Your task to perform on an android device: Open calendar and show me the fourth week of next month Image 0: 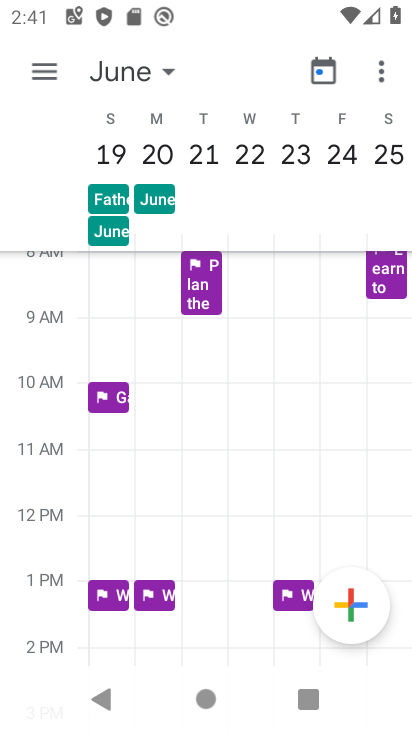
Step 0: press home button
Your task to perform on an android device: Open calendar and show me the fourth week of next month Image 1: 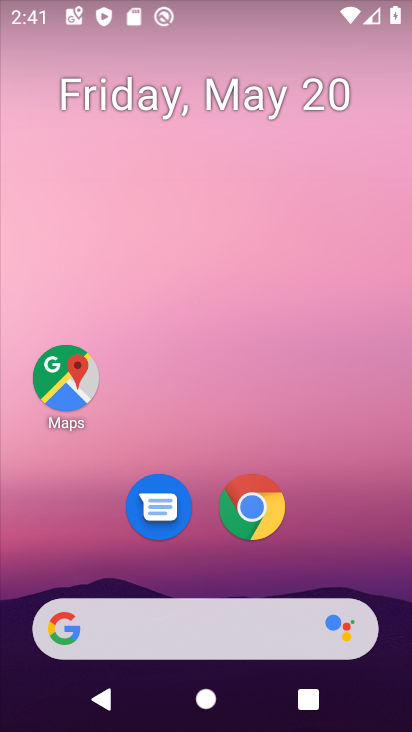
Step 1: drag from (226, 725) to (237, 71)
Your task to perform on an android device: Open calendar and show me the fourth week of next month Image 2: 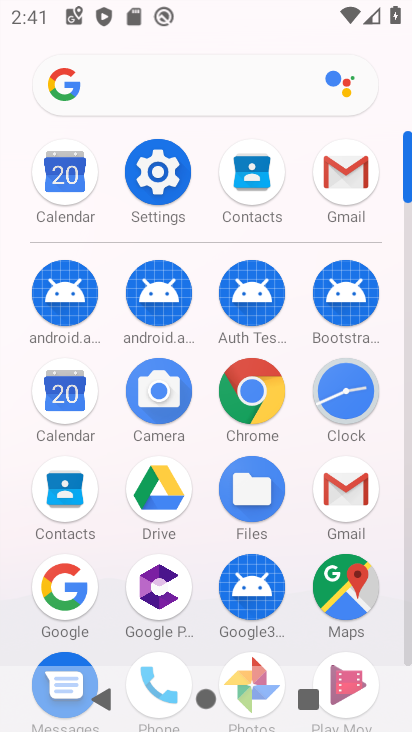
Step 2: click (40, 396)
Your task to perform on an android device: Open calendar and show me the fourth week of next month Image 3: 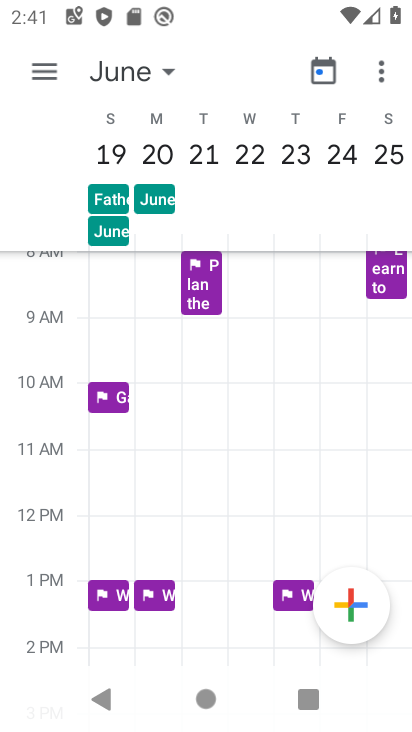
Step 3: click (144, 59)
Your task to perform on an android device: Open calendar and show me the fourth week of next month Image 4: 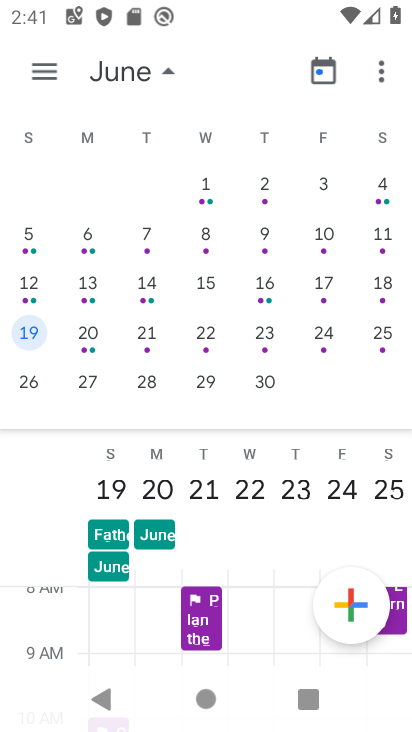
Step 4: click (89, 378)
Your task to perform on an android device: Open calendar and show me the fourth week of next month Image 5: 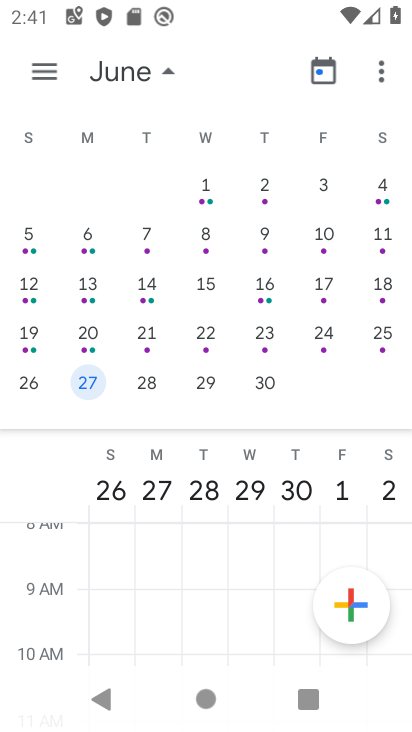
Step 5: click (36, 59)
Your task to perform on an android device: Open calendar and show me the fourth week of next month Image 6: 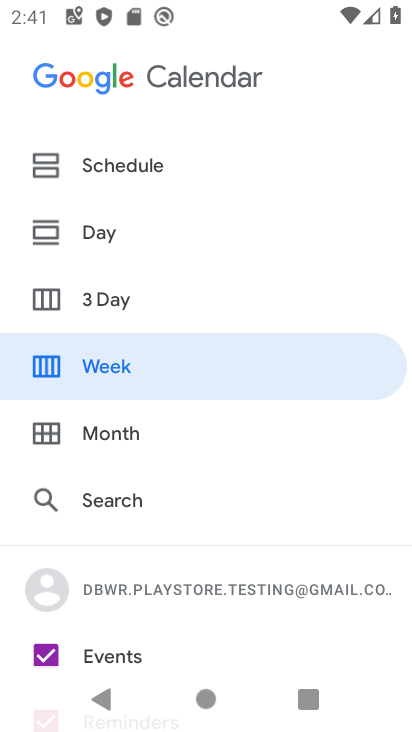
Step 6: click (100, 369)
Your task to perform on an android device: Open calendar and show me the fourth week of next month Image 7: 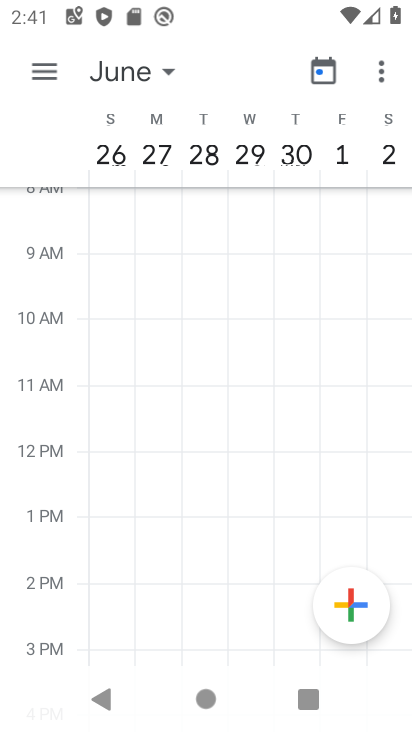
Step 7: task complete